Your task to perform on an android device: Go to Yahoo.com Image 0: 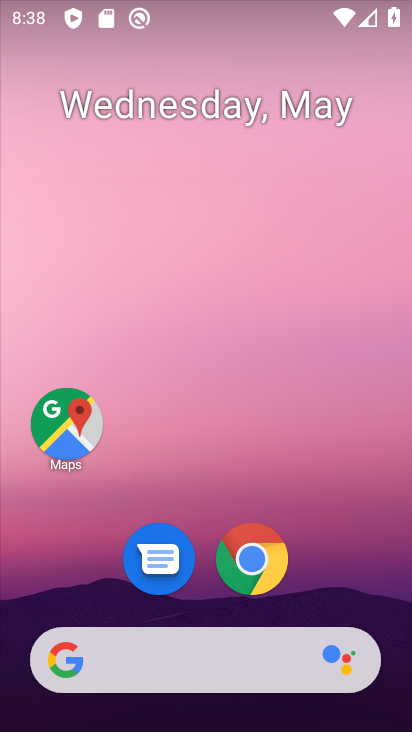
Step 0: click (262, 570)
Your task to perform on an android device: Go to Yahoo.com Image 1: 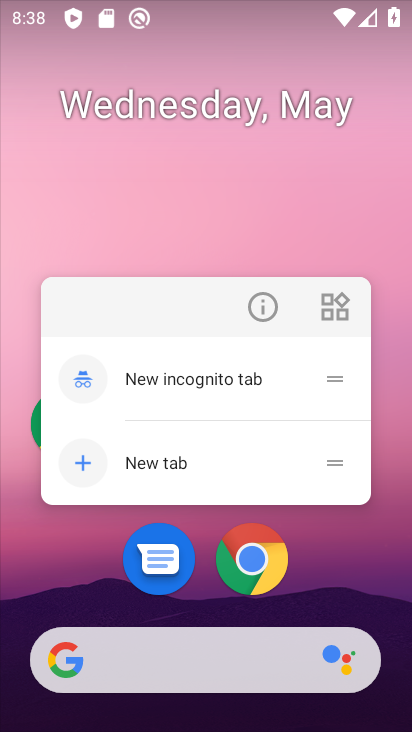
Step 1: click (262, 568)
Your task to perform on an android device: Go to Yahoo.com Image 2: 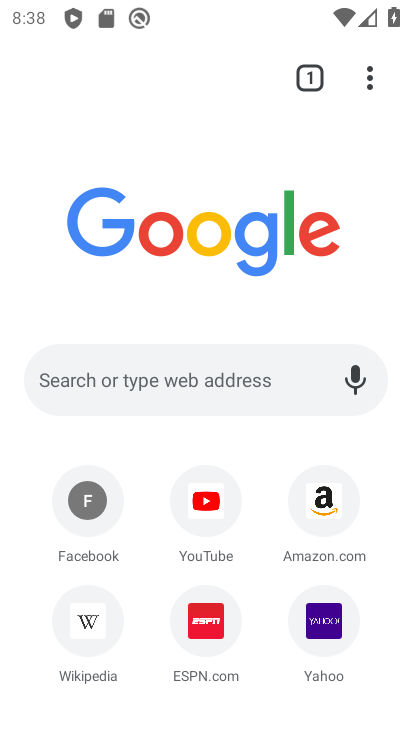
Step 2: click (330, 633)
Your task to perform on an android device: Go to Yahoo.com Image 3: 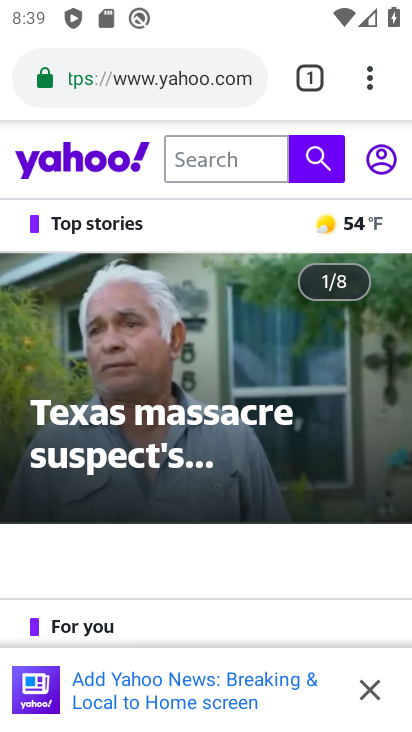
Step 3: task complete